Your task to perform on an android device: add a contact in the contacts app Image 0: 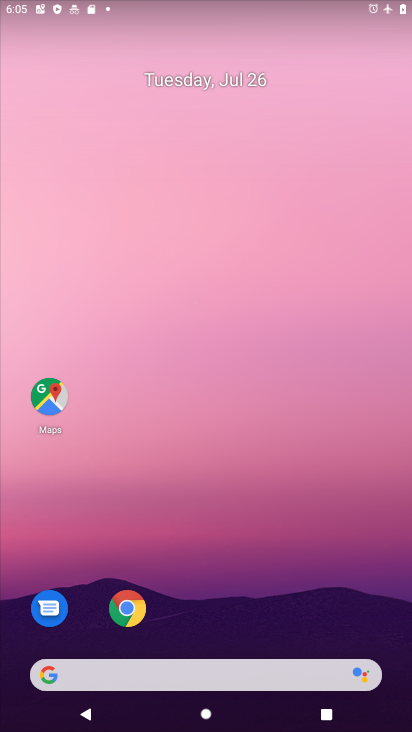
Step 0: press home button
Your task to perform on an android device: add a contact in the contacts app Image 1: 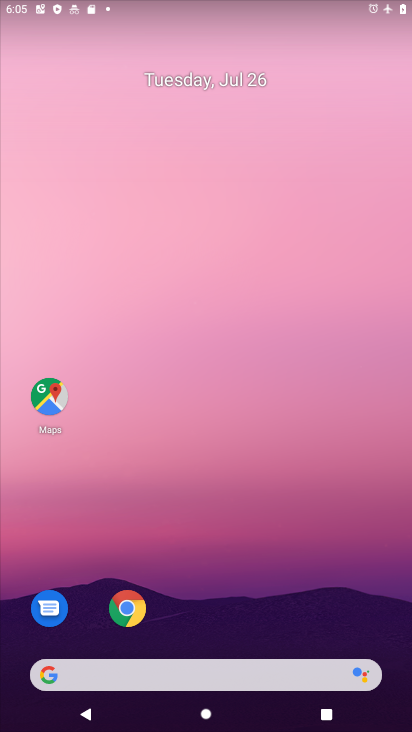
Step 1: drag from (268, 579) to (290, 90)
Your task to perform on an android device: add a contact in the contacts app Image 2: 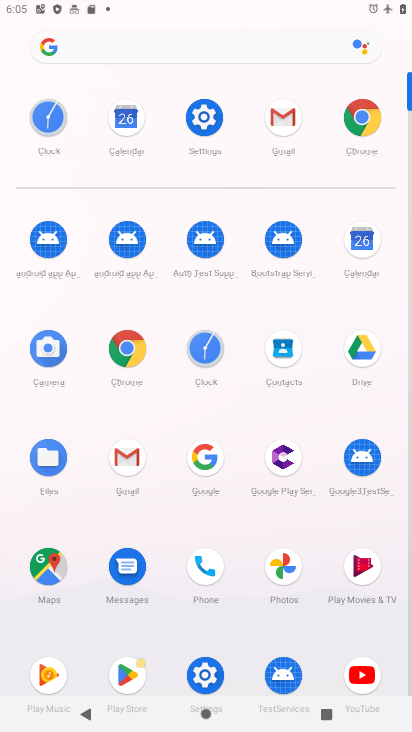
Step 2: click (287, 346)
Your task to perform on an android device: add a contact in the contacts app Image 3: 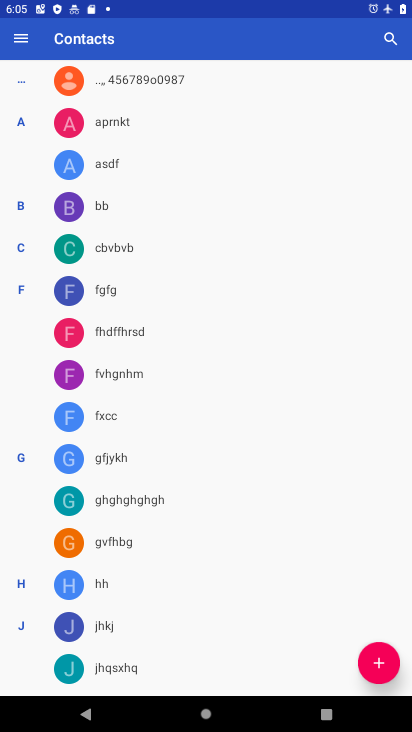
Step 3: click (390, 669)
Your task to perform on an android device: add a contact in the contacts app Image 4: 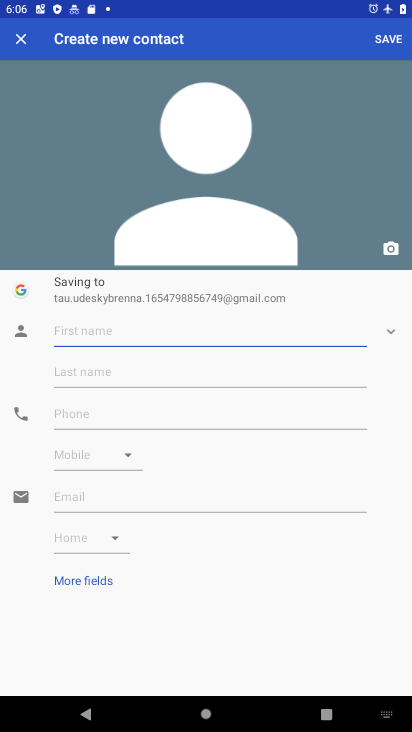
Step 4: type "hjhjhh"
Your task to perform on an android device: add a contact in the contacts app Image 5: 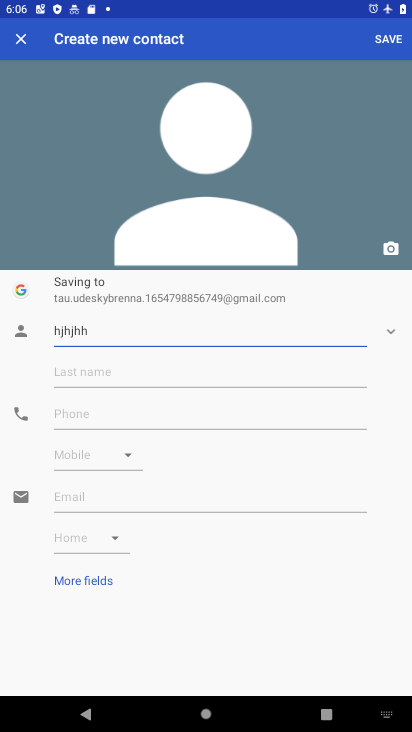
Step 5: click (100, 418)
Your task to perform on an android device: add a contact in the contacts app Image 6: 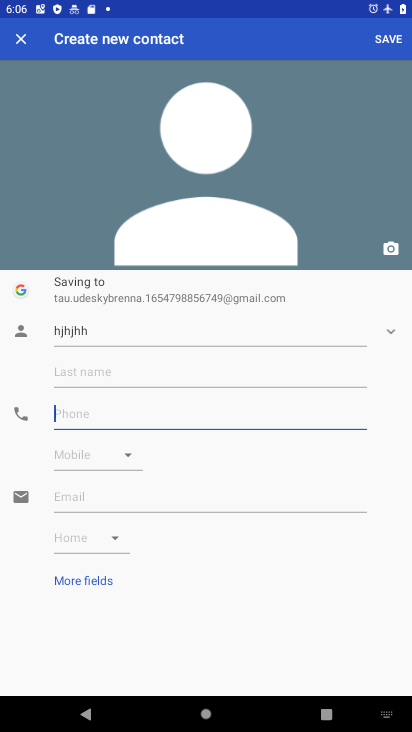
Step 6: type "78787"
Your task to perform on an android device: add a contact in the contacts app Image 7: 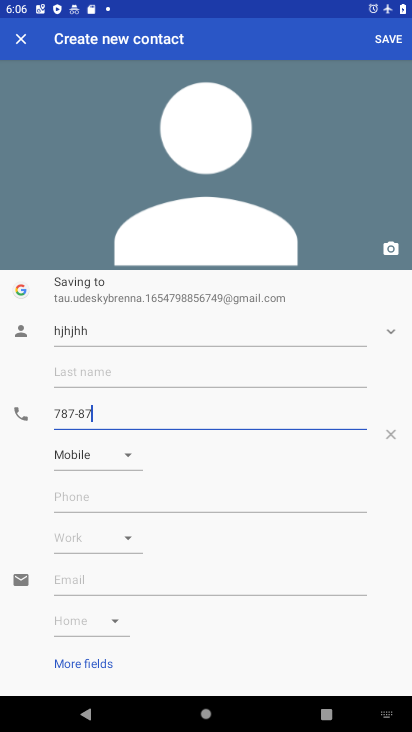
Step 7: click (386, 41)
Your task to perform on an android device: add a contact in the contacts app Image 8: 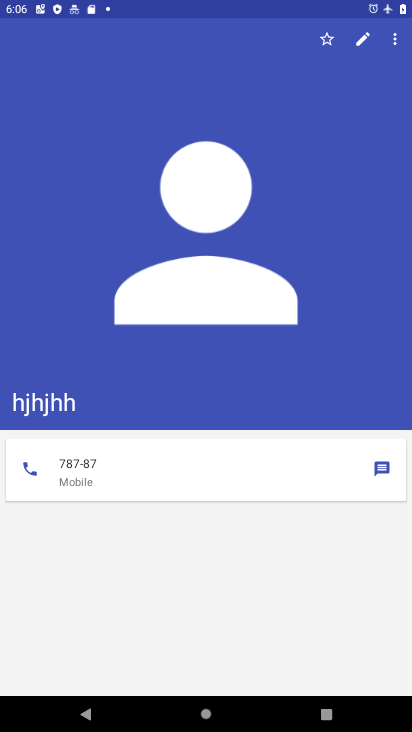
Step 8: task complete